Your task to perform on an android device: toggle data saver in the chrome app Image 0: 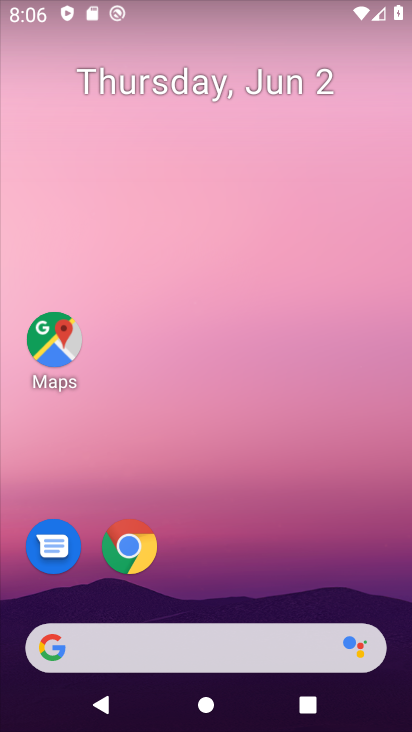
Step 0: drag from (204, 622) to (141, 164)
Your task to perform on an android device: toggle data saver in the chrome app Image 1: 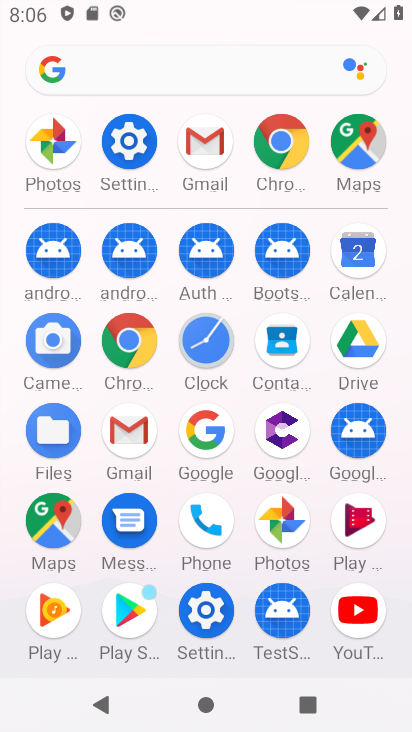
Step 1: click (270, 149)
Your task to perform on an android device: toggle data saver in the chrome app Image 2: 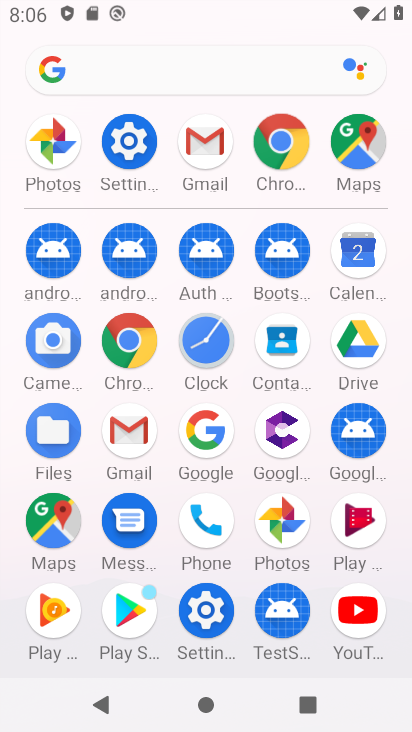
Step 2: click (270, 149)
Your task to perform on an android device: toggle data saver in the chrome app Image 3: 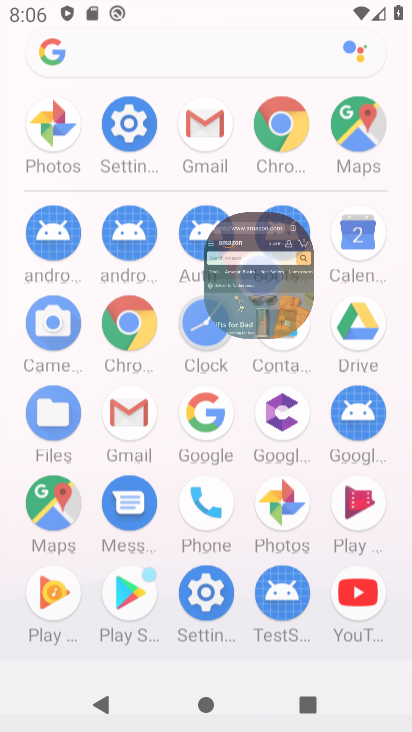
Step 3: click (270, 149)
Your task to perform on an android device: toggle data saver in the chrome app Image 4: 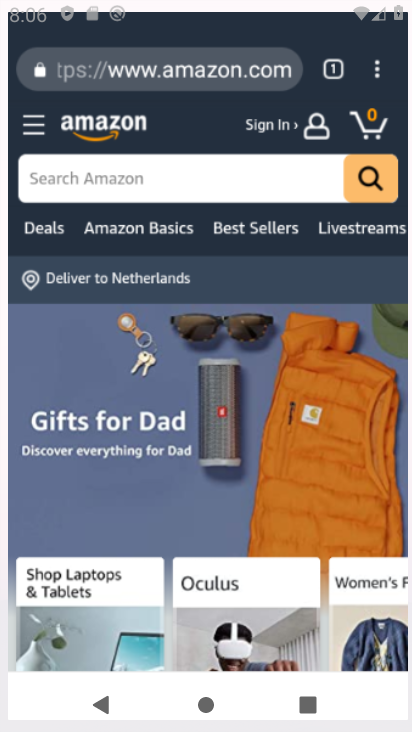
Step 4: click (271, 148)
Your task to perform on an android device: toggle data saver in the chrome app Image 5: 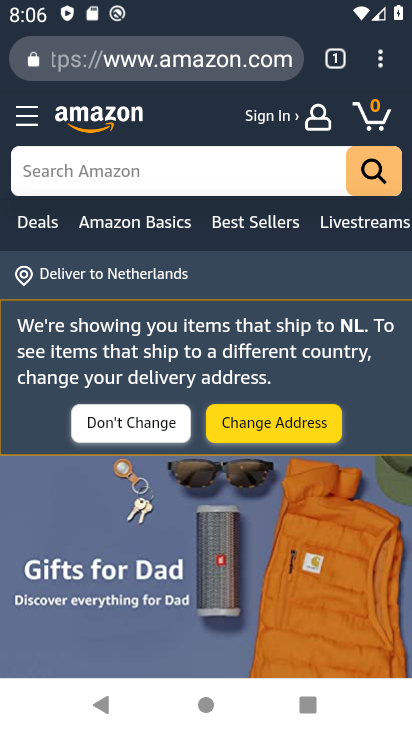
Step 5: drag from (376, 59) to (187, 582)
Your task to perform on an android device: toggle data saver in the chrome app Image 6: 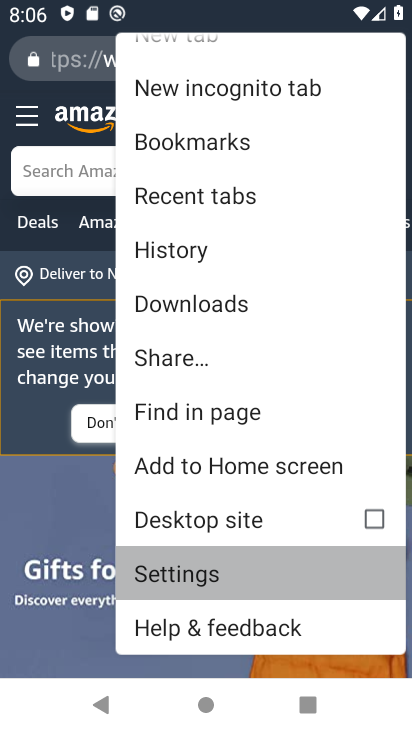
Step 6: click (187, 579)
Your task to perform on an android device: toggle data saver in the chrome app Image 7: 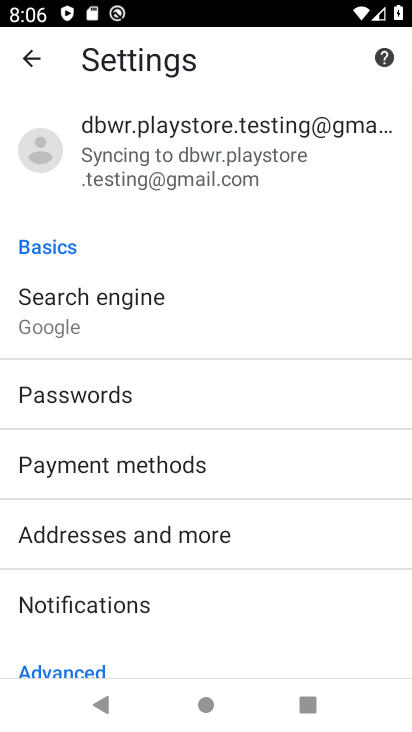
Step 7: drag from (160, 457) to (118, 170)
Your task to perform on an android device: toggle data saver in the chrome app Image 8: 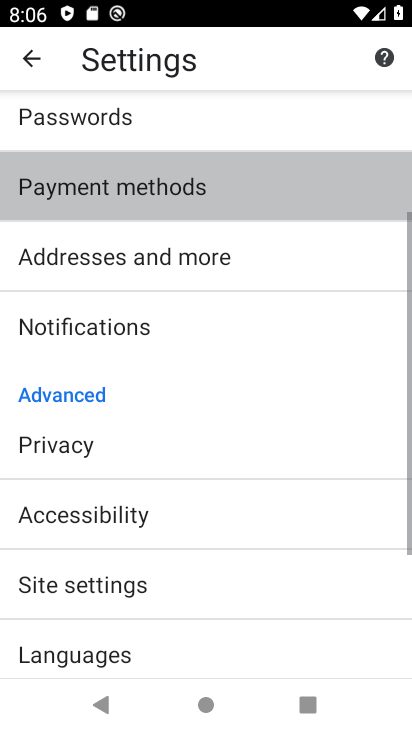
Step 8: drag from (167, 445) to (152, 63)
Your task to perform on an android device: toggle data saver in the chrome app Image 9: 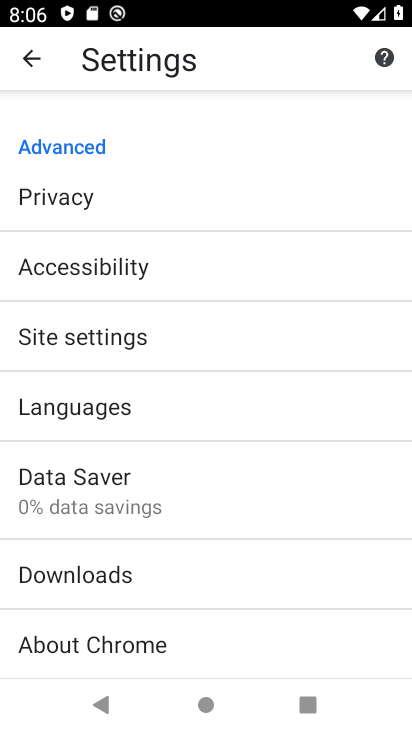
Step 9: click (70, 478)
Your task to perform on an android device: toggle data saver in the chrome app Image 10: 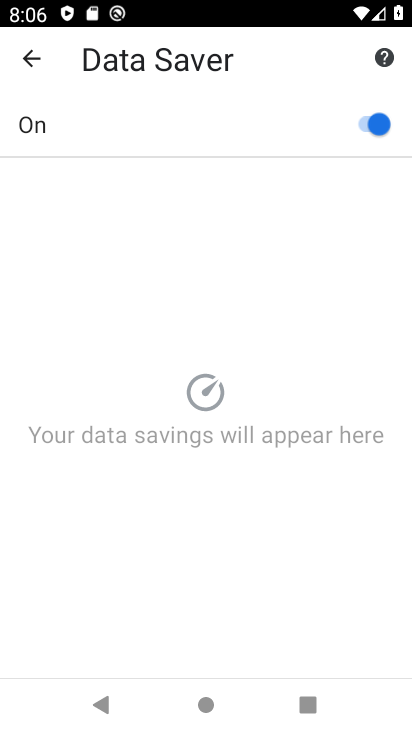
Step 10: click (382, 127)
Your task to perform on an android device: toggle data saver in the chrome app Image 11: 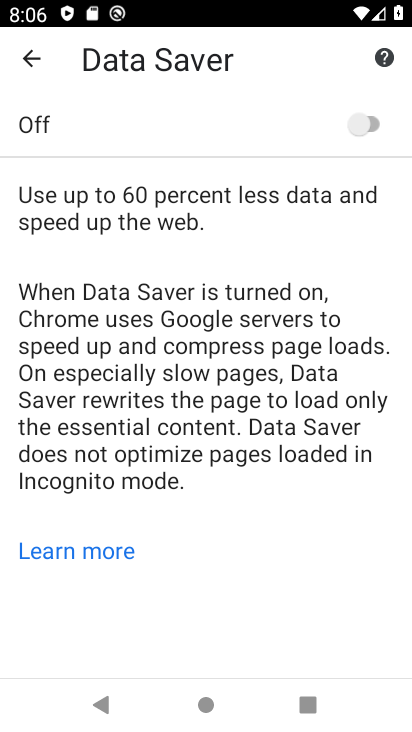
Step 11: task complete